Your task to perform on an android device: move an email to a new category in the gmail app Image 0: 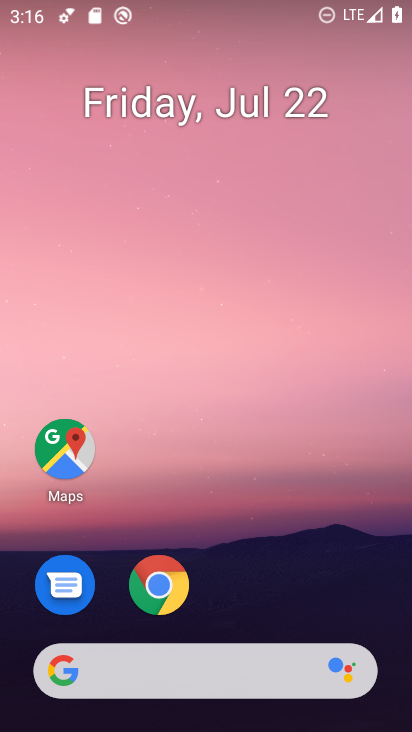
Step 0: drag from (292, 574) to (279, 20)
Your task to perform on an android device: move an email to a new category in the gmail app Image 1: 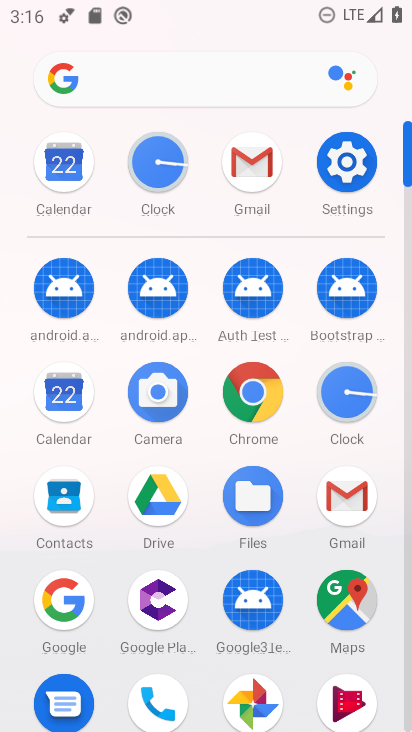
Step 1: click (257, 150)
Your task to perform on an android device: move an email to a new category in the gmail app Image 2: 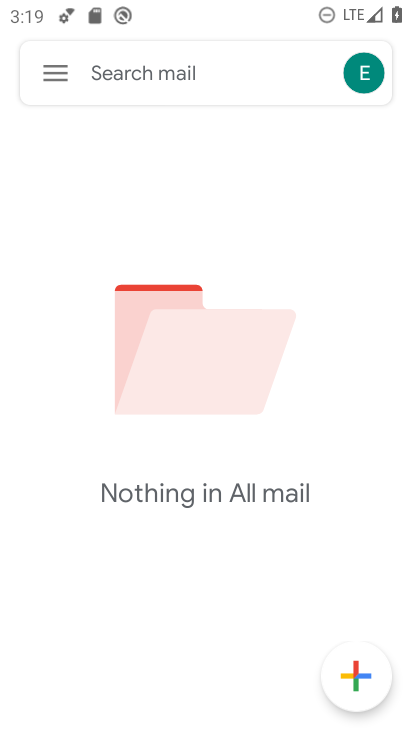
Step 2: task complete